Your task to perform on an android device: Go to battery settings Image 0: 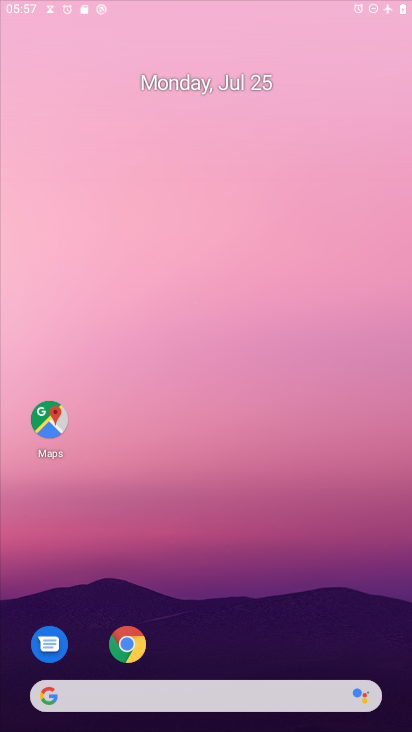
Step 0: press home button
Your task to perform on an android device: Go to battery settings Image 1: 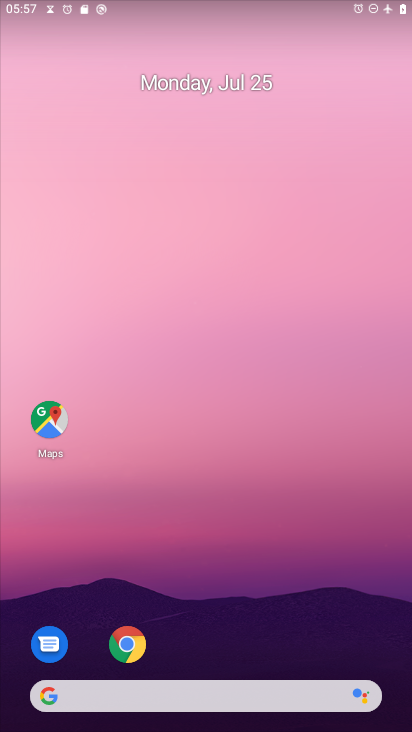
Step 1: drag from (197, 617) to (116, 125)
Your task to perform on an android device: Go to battery settings Image 2: 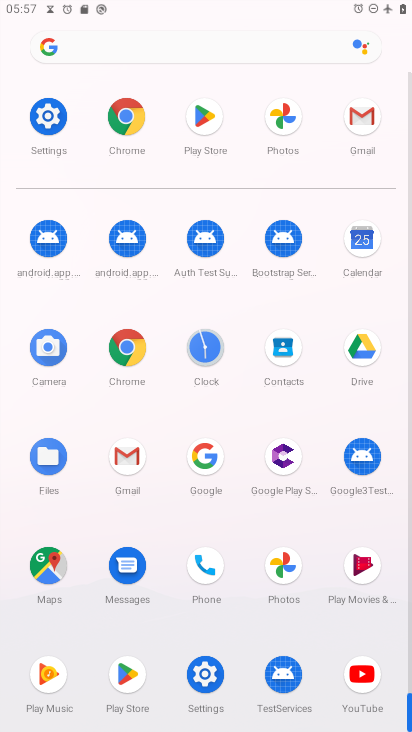
Step 2: click (41, 126)
Your task to perform on an android device: Go to battery settings Image 3: 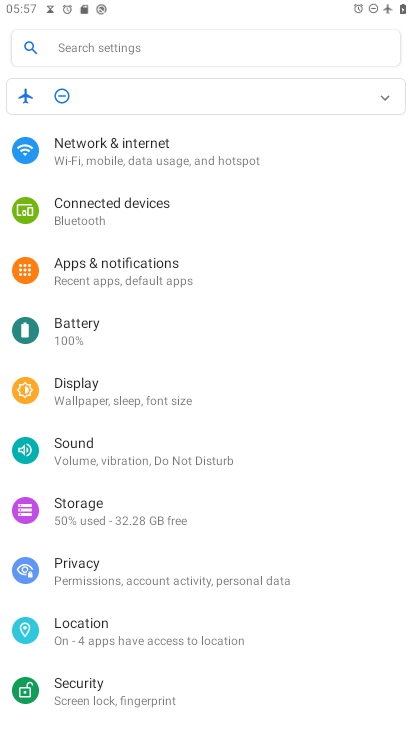
Step 3: click (74, 339)
Your task to perform on an android device: Go to battery settings Image 4: 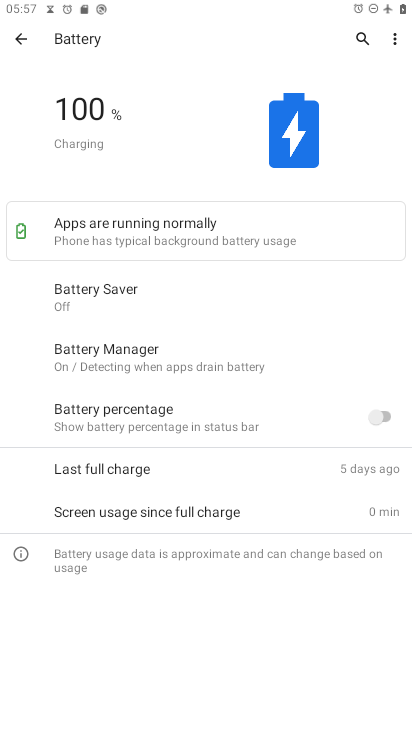
Step 4: task complete